Your task to perform on an android device: Set the phone to "Do not disturb". Image 0: 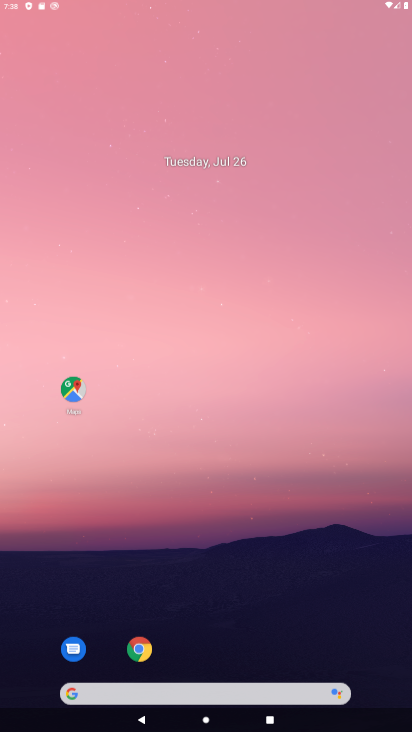
Step 0: click (227, 232)
Your task to perform on an android device: Set the phone to "Do not disturb". Image 1: 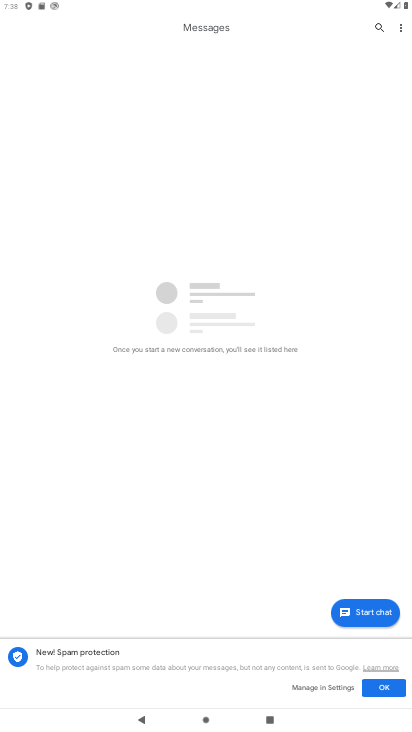
Step 1: press home button
Your task to perform on an android device: Set the phone to "Do not disturb". Image 2: 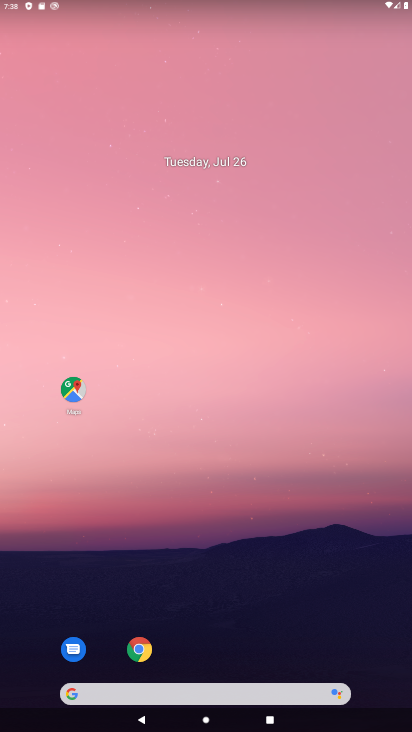
Step 2: drag from (180, 2) to (134, 550)
Your task to perform on an android device: Set the phone to "Do not disturb". Image 3: 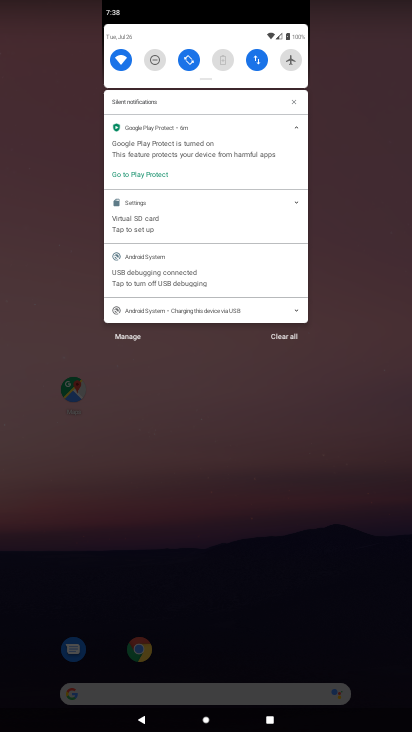
Step 3: click (160, 56)
Your task to perform on an android device: Set the phone to "Do not disturb". Image 4: 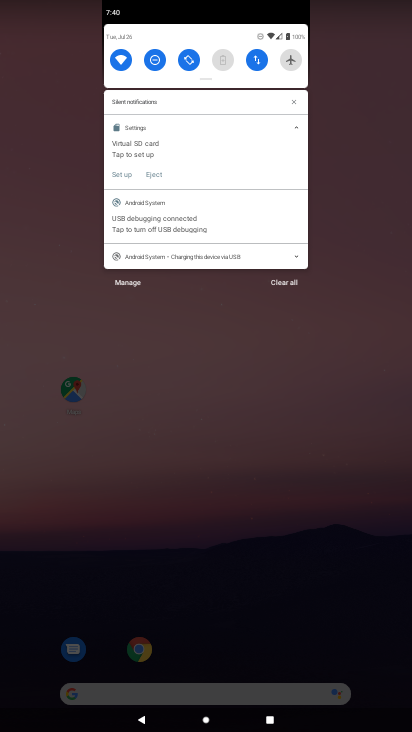
Step 4: task complete